Your task to perform on an android device: Go to ESPN.com Image 0: 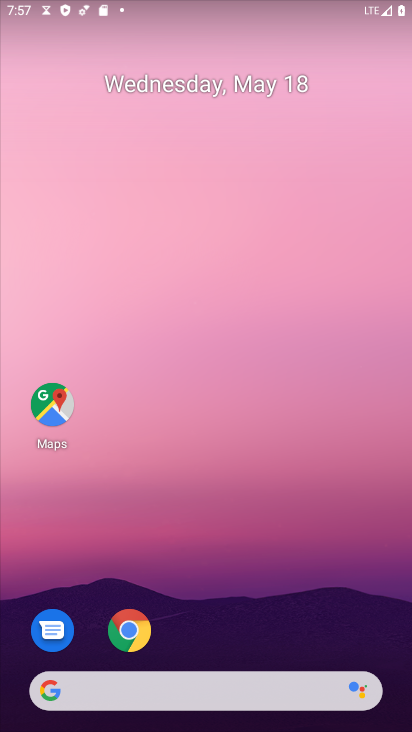
Step 0: drag from (265, 529) to (254, 53)
Your task to perform on an android device: Go to ESPN.com Image 1: 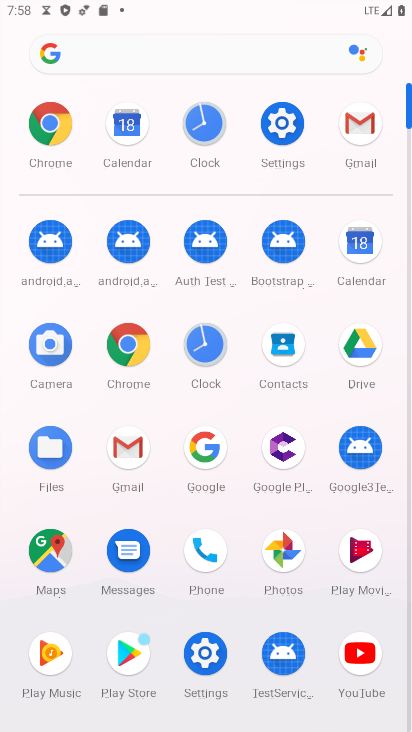
Step 1: click (47, 108)
Your task to perform on an android device: Go to ESPN.com Image 2: 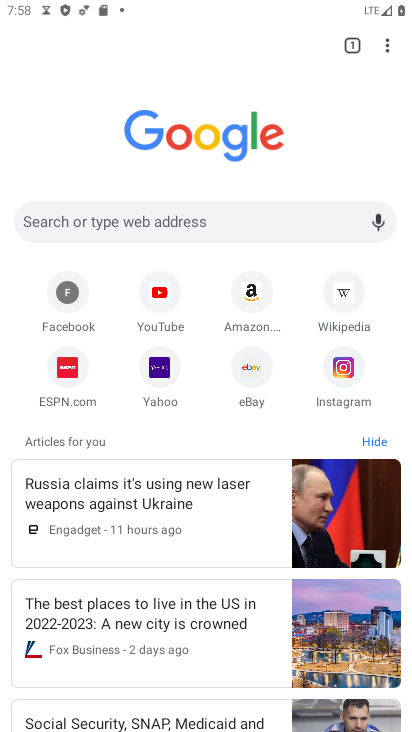
Step 2: click (77, 369)
Your task to perform on an android device: Go to ESPN.com Image 3: 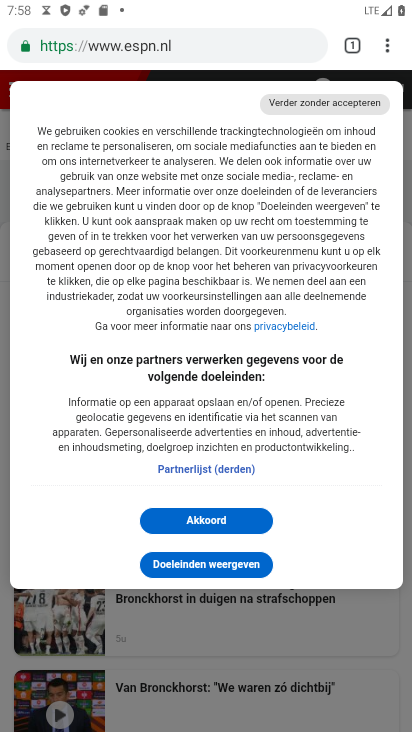
Step 3: task complete